Your task to perform on an android device: Is it going to rain this weekend? Image 0: 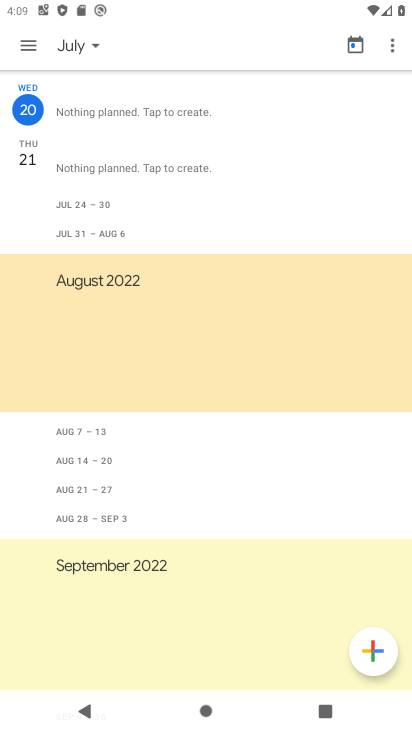
Step 0: drag from (279, 288) to (294, 85)
Your task to perform on an android device: Is it going to rain this weekend? Image 1: 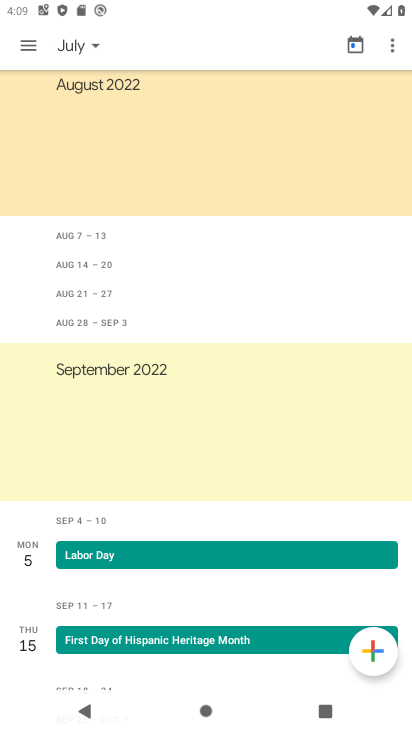
Step 1: press home button
Your task to perform on an android device: Is it going to rain this weekend? Image 2: 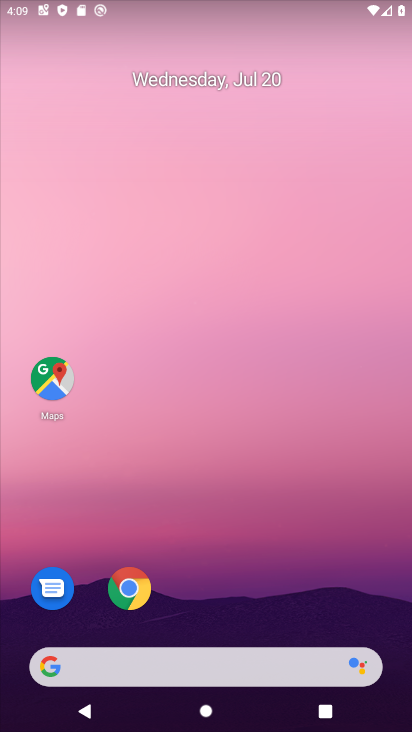
Step 2: drag from (294, 589) to (272, 60)
Your task to perform on an android device: Is it going to rain this weekend? Image 3: 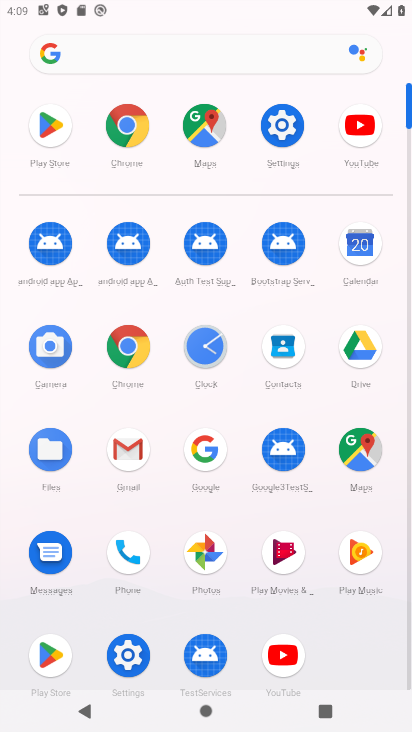
Step 3: click (130, 133)
Your task to perform on an android device: Is it going to rain this weekend? Image 4: 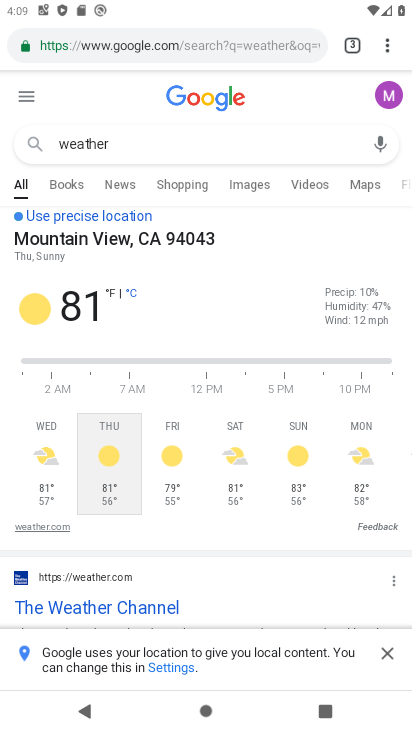
Step 4: click (236, 451)
Your task to perform on an android device: Is it going to rain this weekend? Image 5: 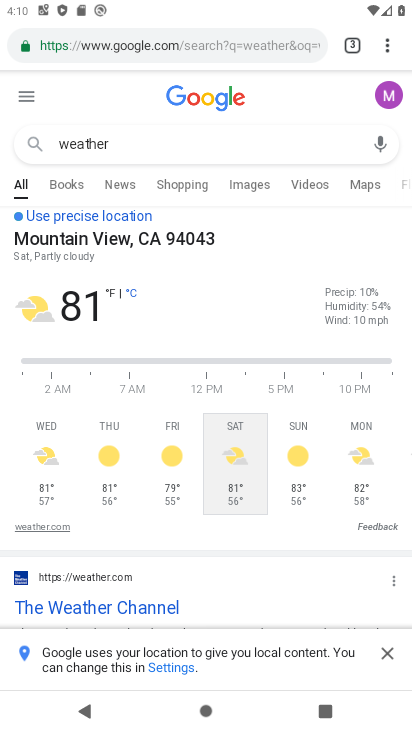
Step 5: task complete